Your task to perform on an android device: change alarm snooze length Image 0: 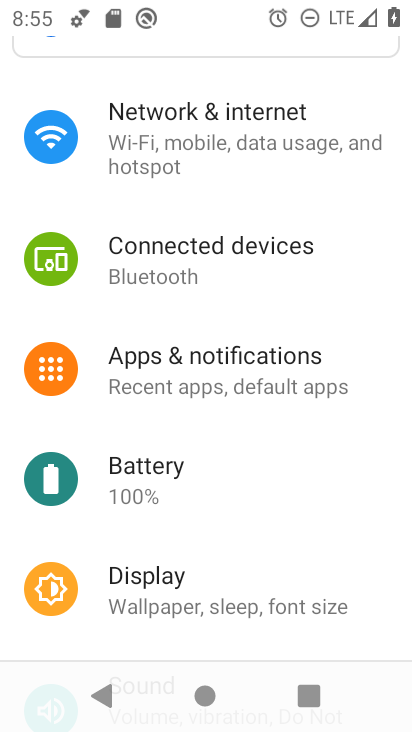
Step 0: press home button
Your task to perform on an android device: change alarm snooze length Image 1: 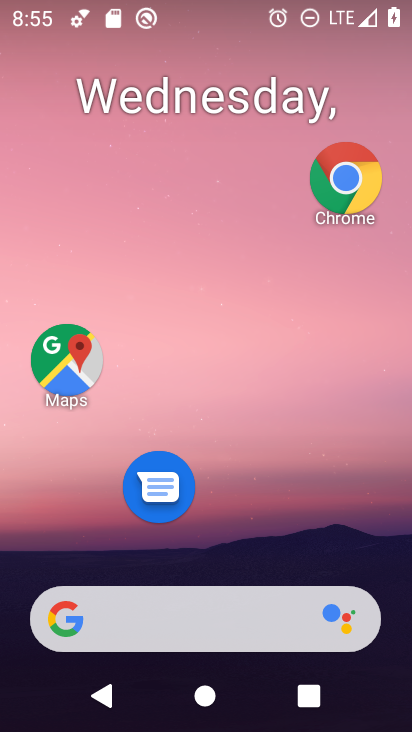
Step 1: drag from (203, 603) to (213, 116)
Your task to perform on an android device: change alarm snooze length Image 2: 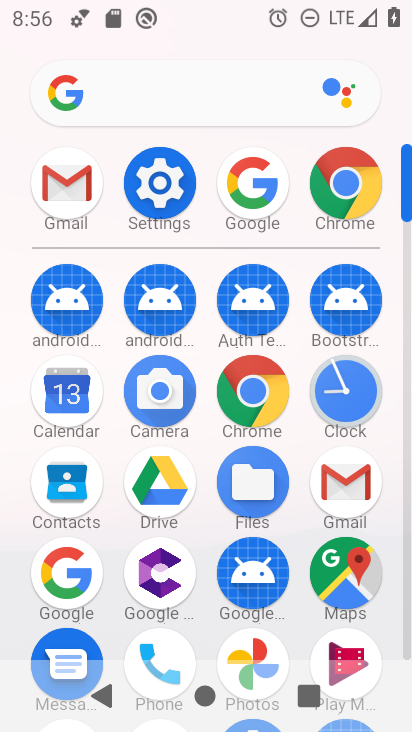
Step 2: click (362, 396)
Your task to perform on an android device: change alarm snooze length Image 3: 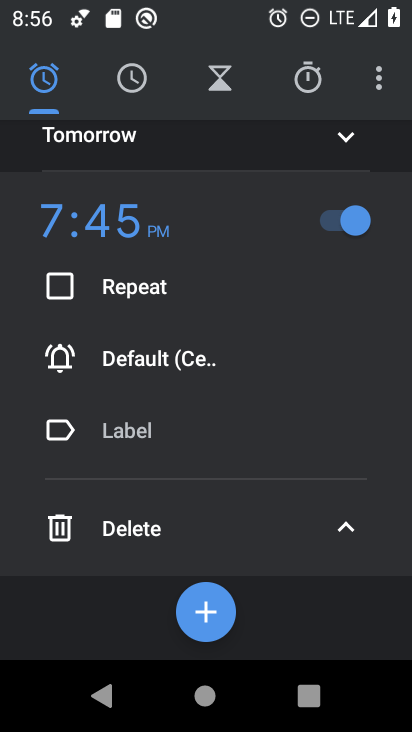
Step 3: click (389, 74)
Your task to perform on an android device: change alarm snooze length Image 4: 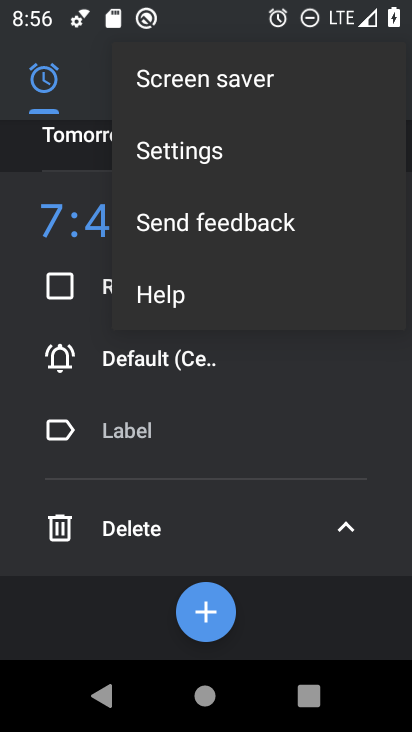
Step 4: click (225, 152)
Your task to perform on an android device: change alarm snooze length Image 5: 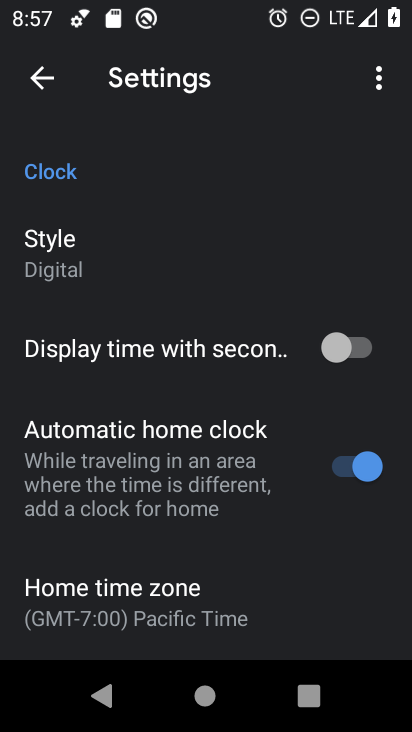
Step 5: drag from (130, 524) to (134, 287)
Your task to perform on an android device: change alarm snooze length Image 6: 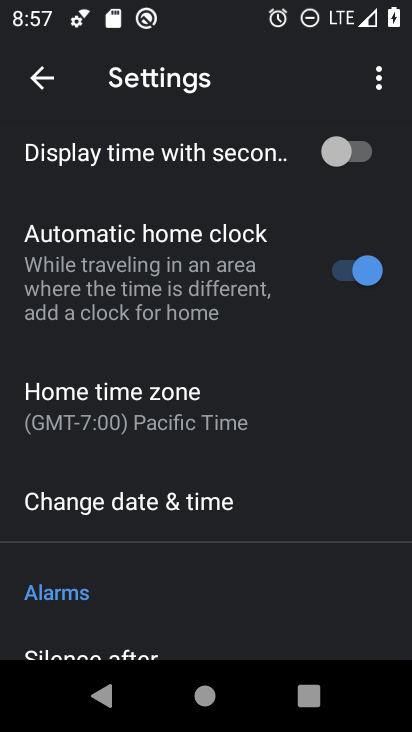
Step 6: drag from (132, 550) to (129, 413)
Your task to perform on an android device: change alarm snooze length Image 7: 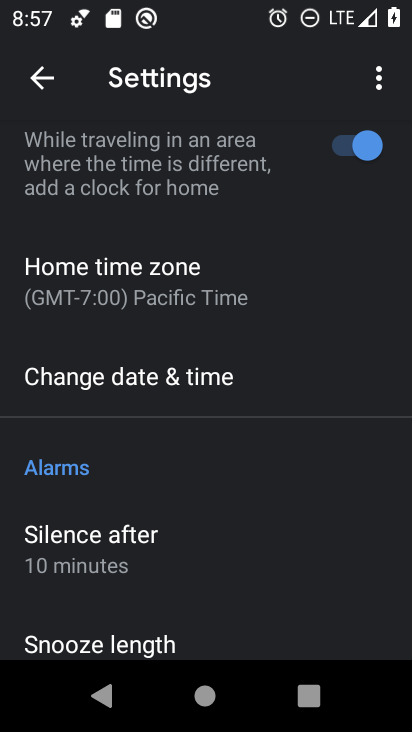
Step 7: drag from (119, 545) to (143, 256)
Your task to perform on an android device: change alarm snooze length Image 8: 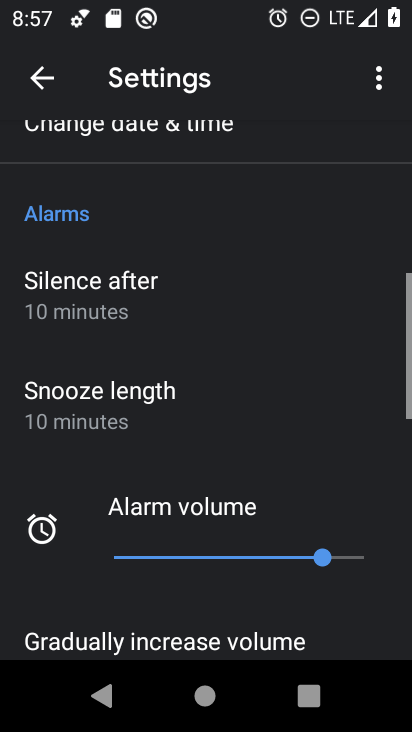
Step 8: click (121, 400)
Your task to perform on an android device: change alarm snooze length Image 9: 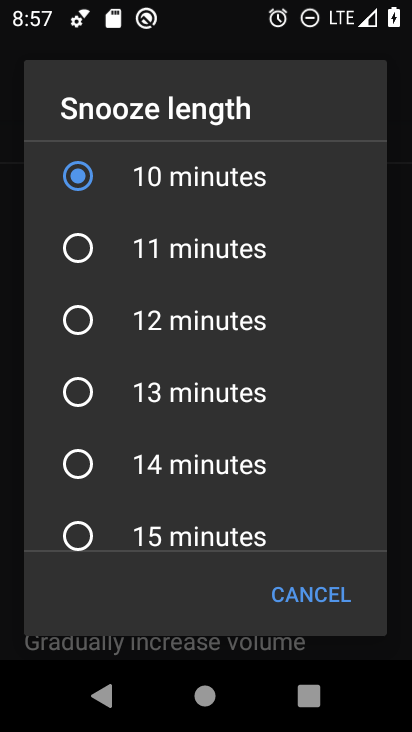
Step 9: click (72, 330)
Your task to perform on an android device: change alarm snooze length Image 10: 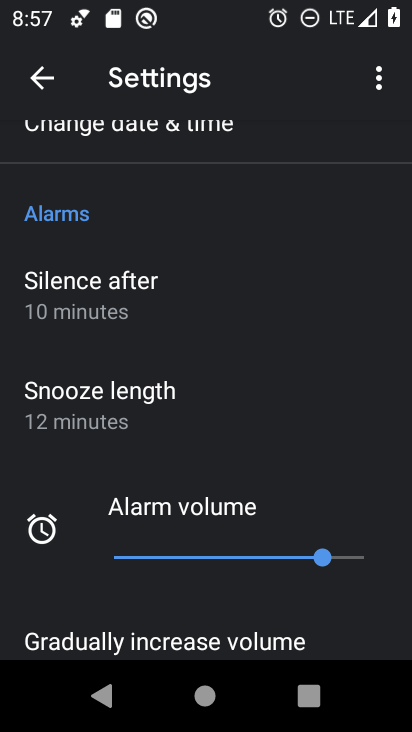
Step 10: task complete